Your task to perform on an android device: Search for seafood restaurants on Google Maps Image 0: 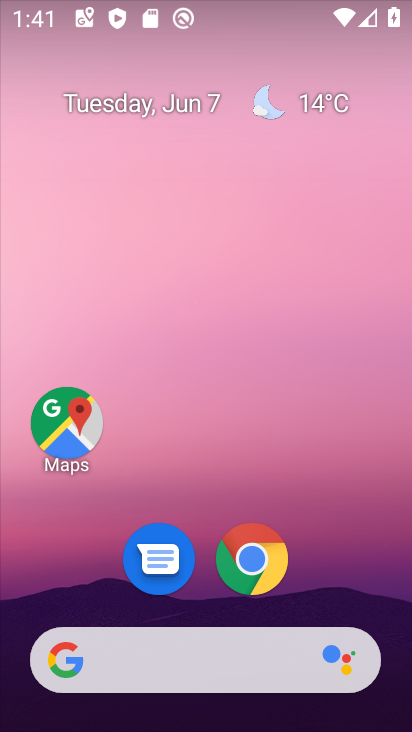
Step 0: drag from (355, 560) to (220, 52)
Your task to perform on an android device: Search for seafood restaurants on Google Maps Image 1: 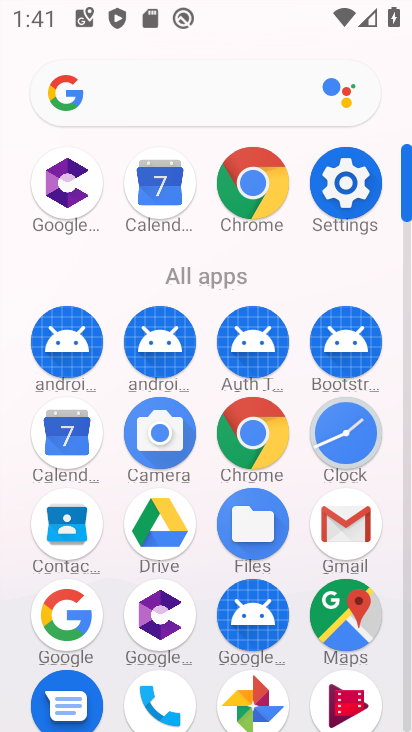
Step 1: click (347, 612)
Your task to perform on an android device: Search for seafood restaurants on Google Maps Image 2: 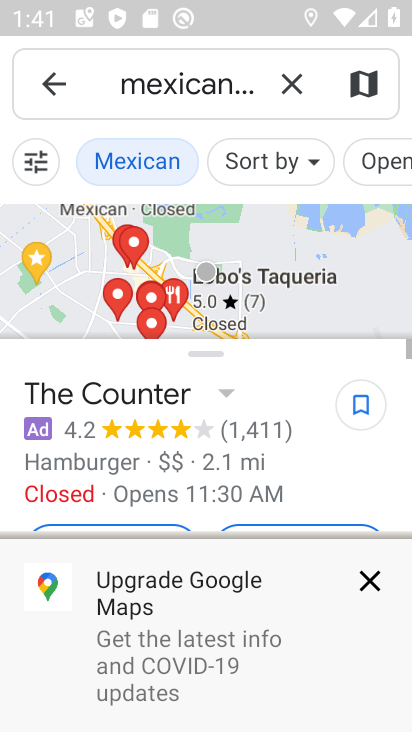
Step 2: click (291, 73)
Your task to perform on an android device: Search for seafood restaurants on Google Maps Image 3: 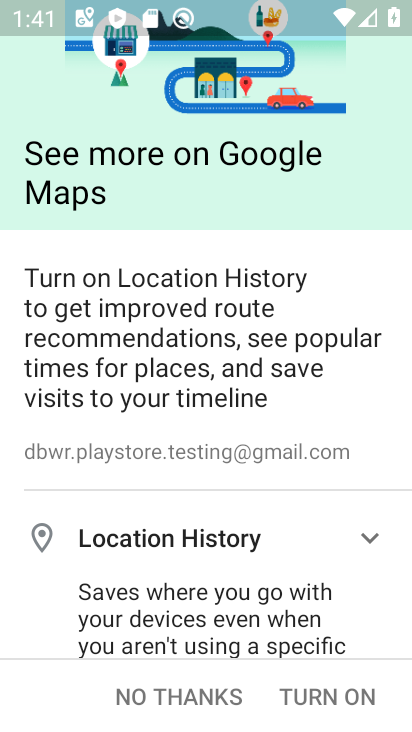
Step 3: click (310, 696)
Your task to perform on an android device: Search for seafood restaurants on Google Maps Image 4: 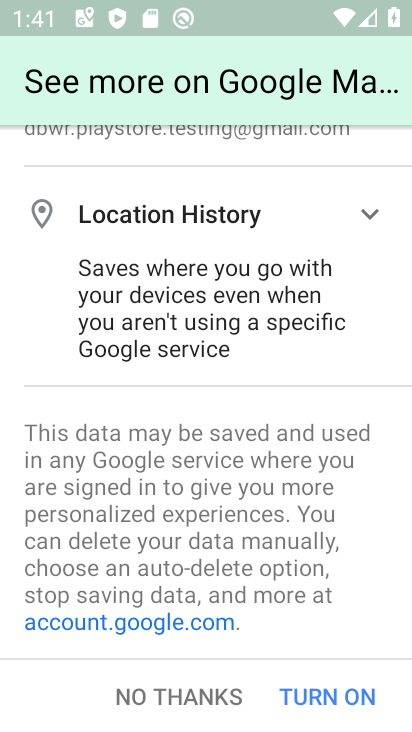
Step 4: click (312, 696)
Your task to perform on an android device: Search for seafood restaurants on Google Maps Image 5: 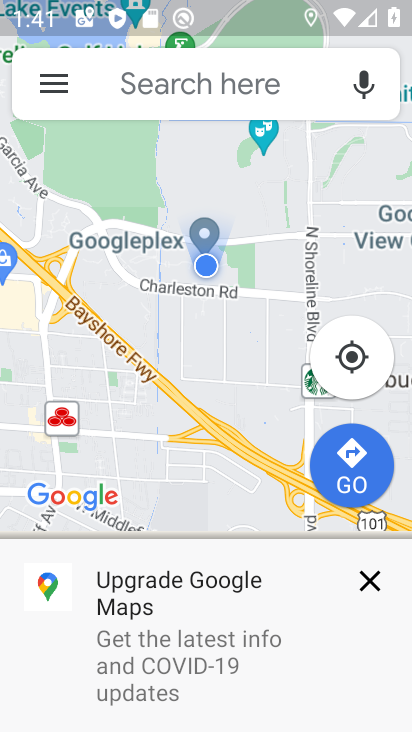
Step 5: click (364, 582)
Your task to perform on an android device: Search for seafood restaurants on Google Maps Image 6: 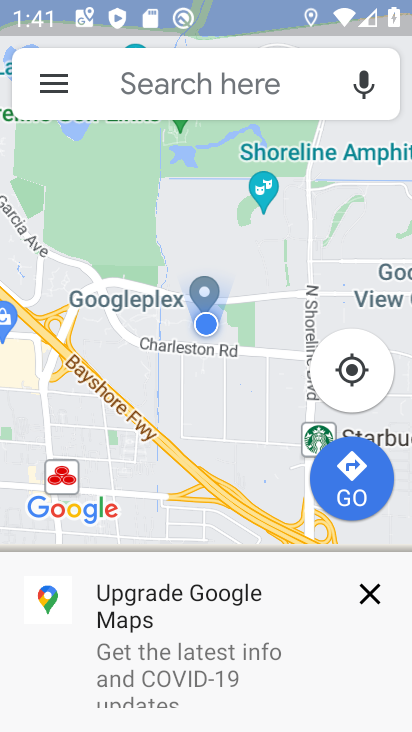
Step 6: click (293, 69)
Your task to perform on an android device: Search for seafood restaurants on Google Maps Image 7: 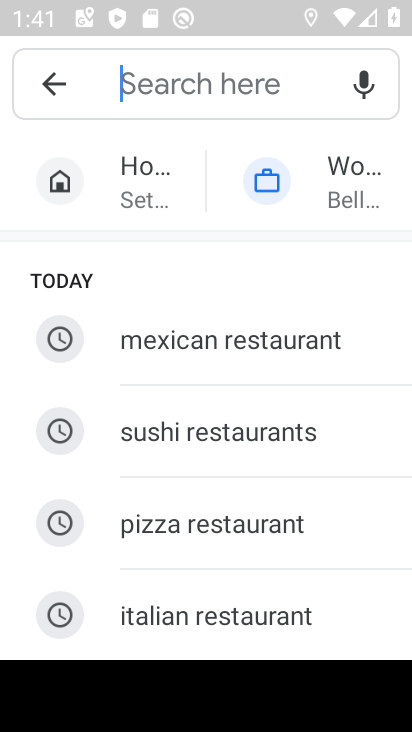
Step 7: drag from (300, 588) to (302, 356)
Your task to perform on an android device: Search for seafood restaurants on Google Maps Image 8: 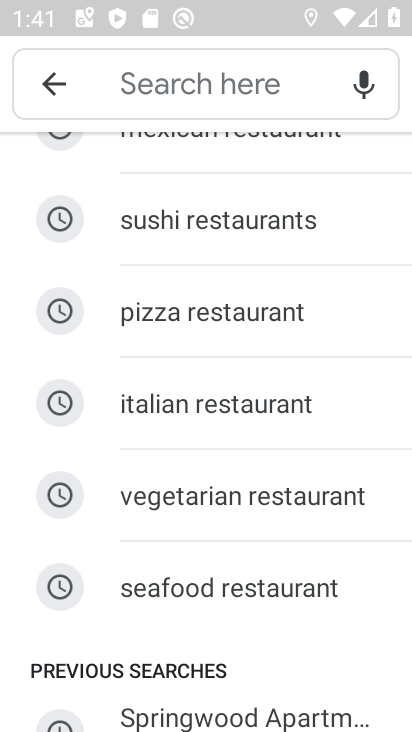
Step 8: click (217, 583)
Your task to perform on an android device: Search for seafood restaurants on Google Maps Image 9: 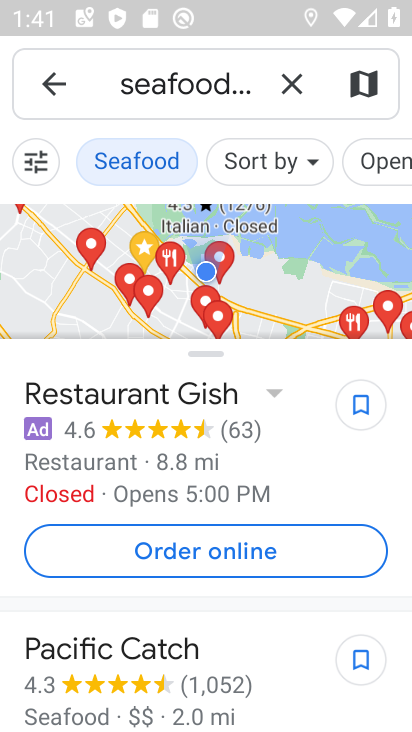
Step 9: task complete